Your task to perform on an android device: turn pop-ups on in chrome Image 0: 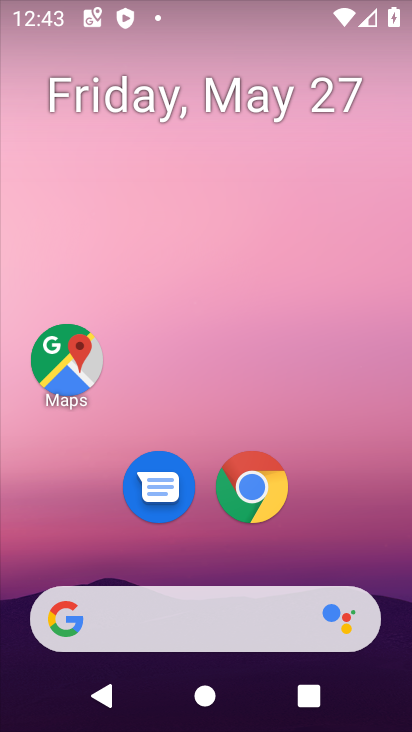
Step 0: click (250, 486)
Your task to perform on an android device: turn pop-ups on in chrome Image 1: 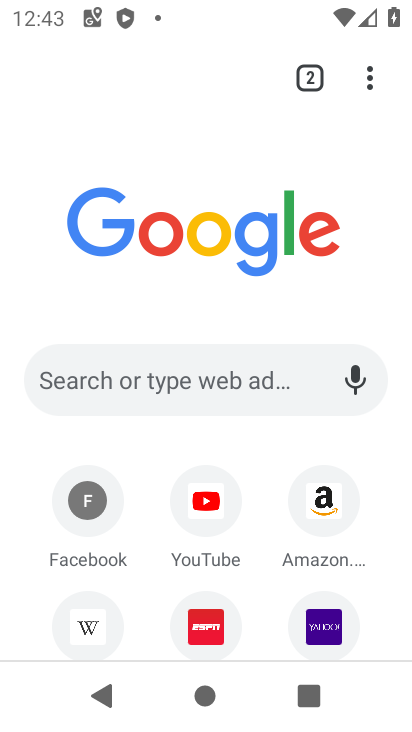
Step 1: click (366, 81)
Your task to perform on an android device: turn pop-ups on in chrome Image 2: 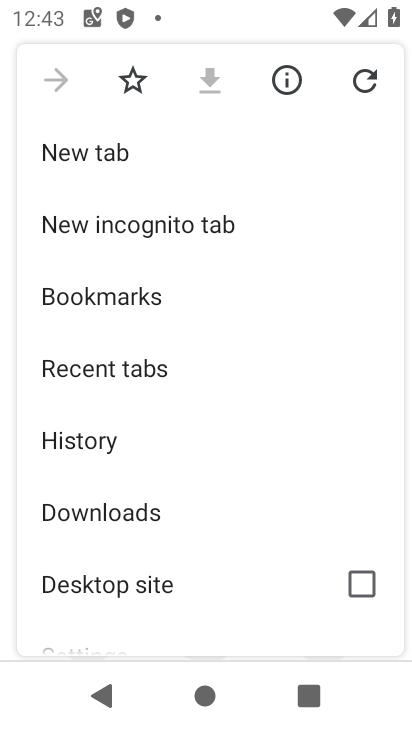
Step 2: drag from (220, 531) to (235, 232)
Your task to perform on an android device: turn pop-ups on in chrome Image 3: 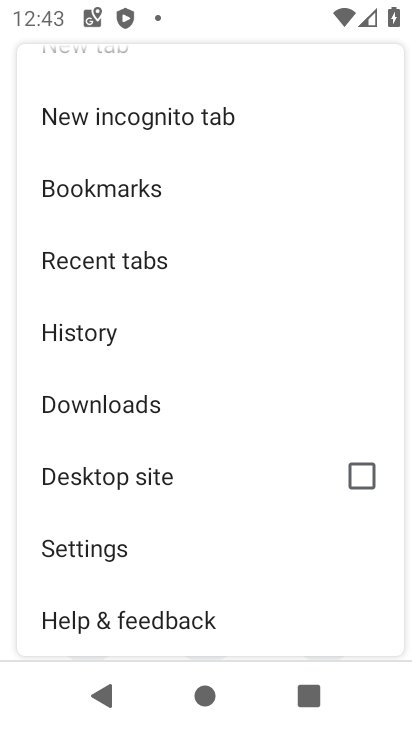
Step 3: click (97, 549)
Your task to perform on an android device: turn pop-ups on in chrome Image 4: 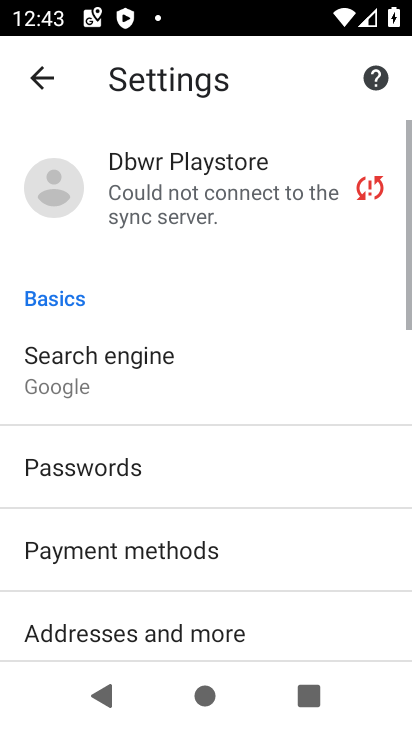
Step 4: drag from (157, 606) to (224, 182)
Your task to perform on an android device: turn pop-ups on in chrome Image 5: 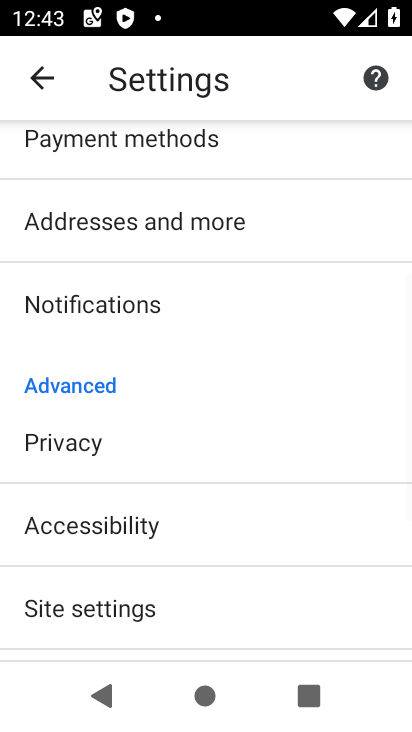
Step 5: drag from (185, 625) to (181, 575)
Your task to perform on an android device: turn pop-ups on in chrome Image 6: 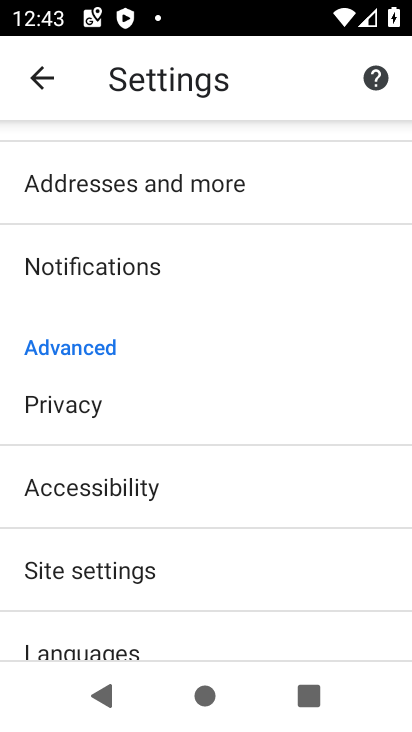
Step 6: click (128, 567)
Your task to perform on an android device: turn pop-ups on in chrome Image 7: 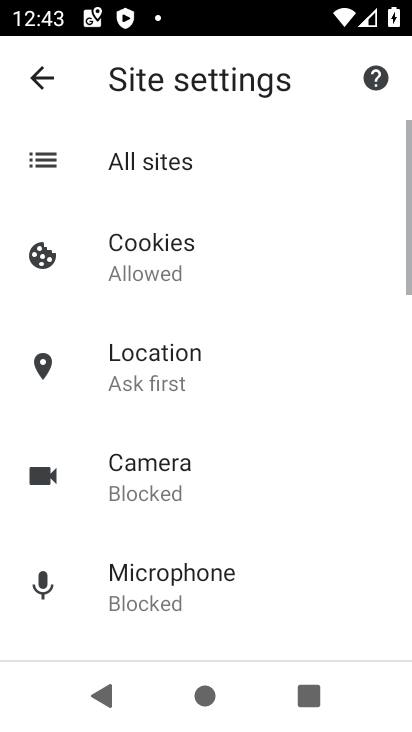
Step 7: drag from (245, 591) to (271, 231)
Your task to perform on an android device: turn pop-ups on in chrome Image 8: 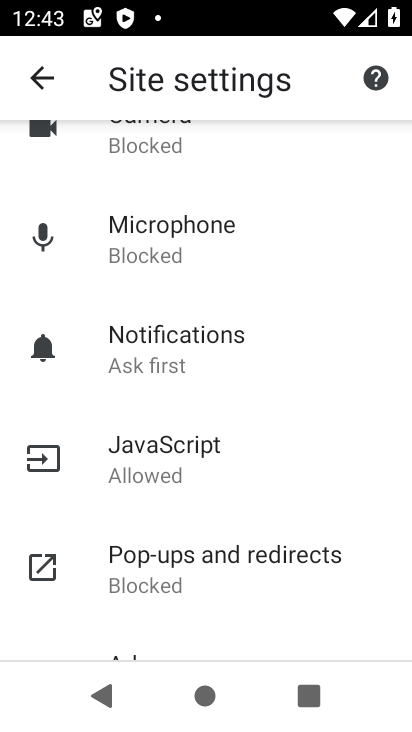
Step 8: click (155, 556)
Your task to perform on an android device: turn pop-ups on in chrome Image 9: 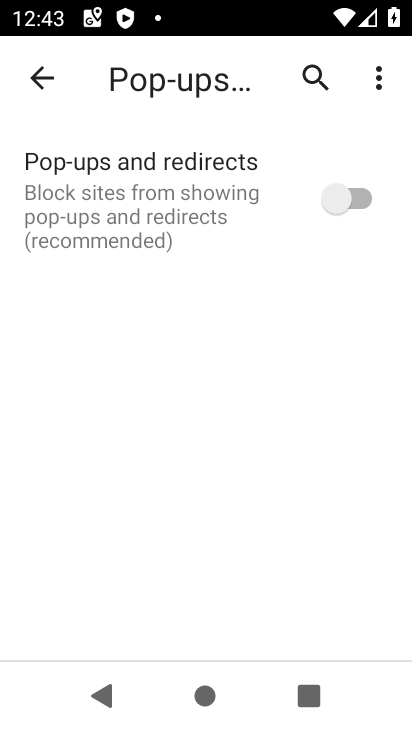
Step 9: click (335, 197)
Your task to perform on an android device: turn pop-ups on in chrome Image 10: 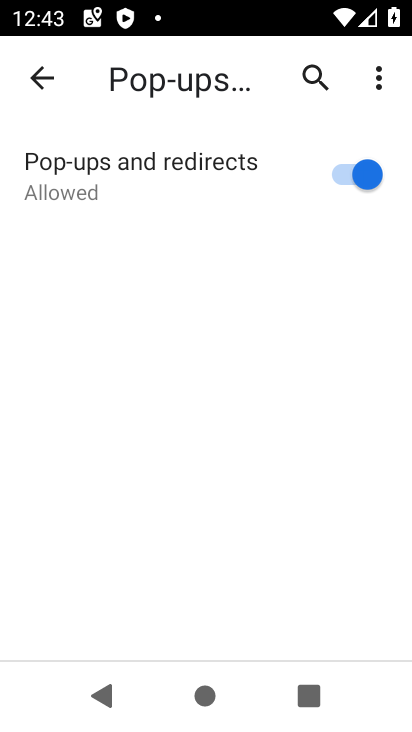
Step 10: task complete